Your task to perform on an android device: turn on notifications settings in the gmail app Image 0: 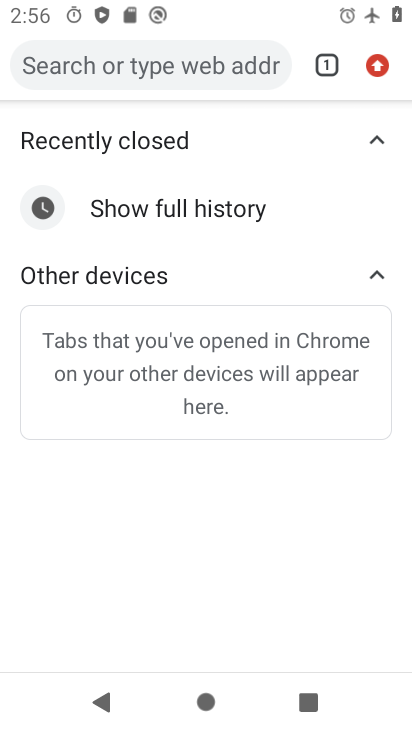
Step 0: press home button
Your task to perform on an android device: turn on notifications settings in the gmail app Image 1: 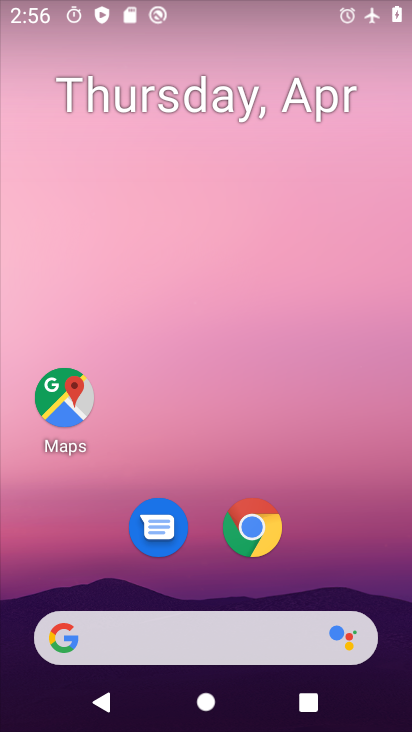
Step 1: drag from (326, 552) to (356, 136)
Your task to perform on an android device: turn on notifications settings in the gmail app Image 2: 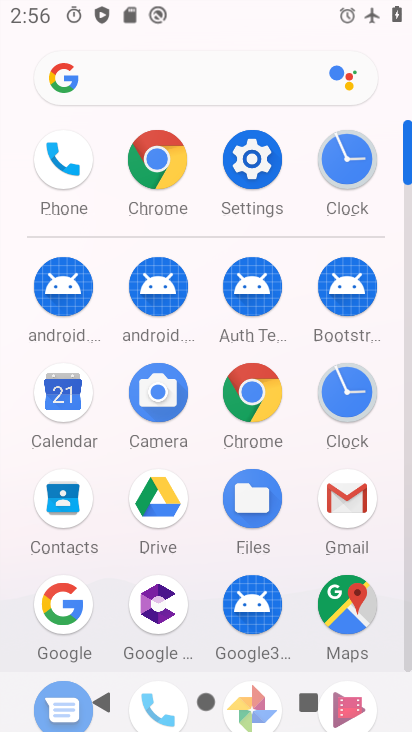
Step 2: click (348, 494)
Your task to perform on an android device: turn on notifications settings in the gmail app Image 3: 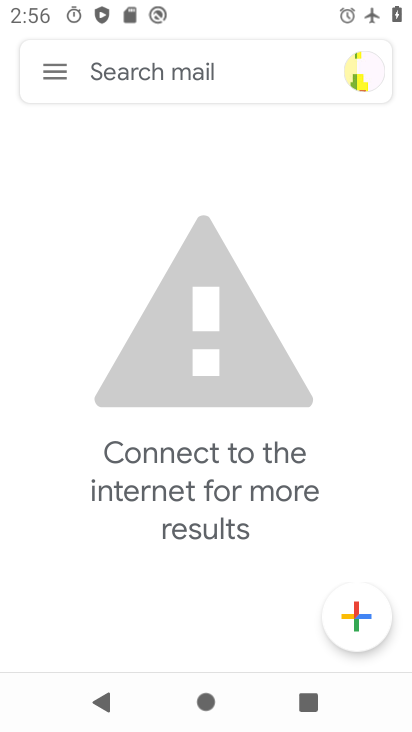
Step 3: click (61, 77)
Your task to perform on an android device: turn on notifications settings in the gmail app Image 4: 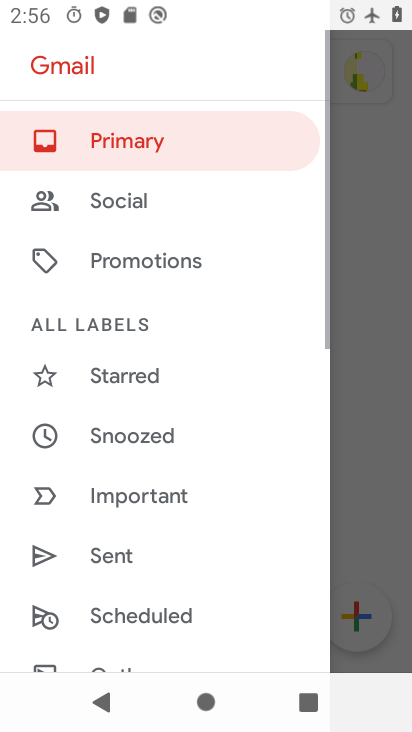
Step 4: drag from (171, 574) to (216, 167)
Your task to perform on an android device: turn on notifications settings in the gmail app Image 5: 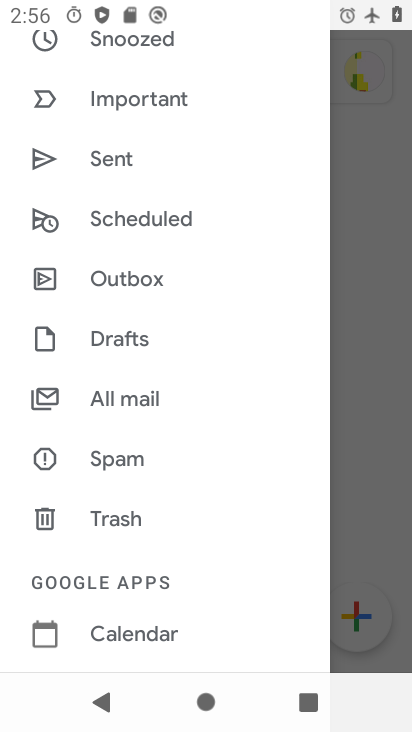
Step 5: drag from (132, 527) to (198, 181)
Your task to perform on an android device: turn on notifications settings in the gmail app Image 6: 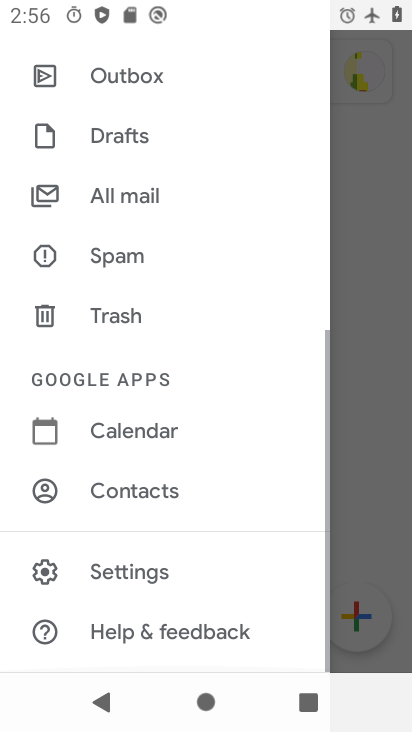
Step 6: click (127, 568)
Your task to perform on an android device: turn on notifications settings in the gmail app Image 7: 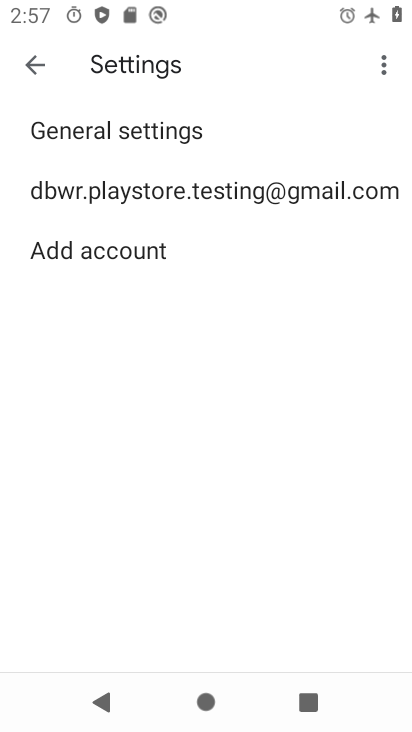
Step 7: click (188, 194)
Your task to perform on an android device: turn on notifications settings in the gmail app Image 8: 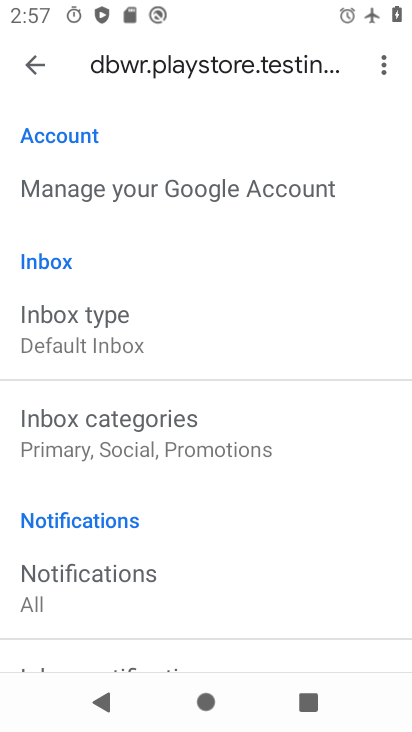
Step 8: drag from (165, 472) to (215, 168)
Your task to perform on an android device: turn on notifications settings in the gmail app Image 9: 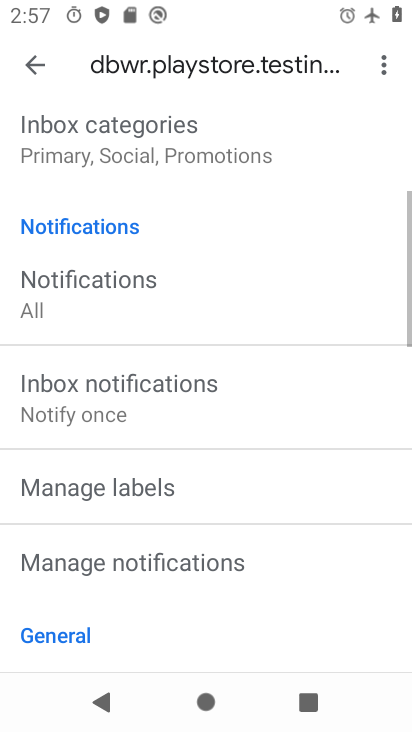
Step 9: click (91, 573)
Your task to perform on an android device: turn on notifications settings in the gmail app Image 10: 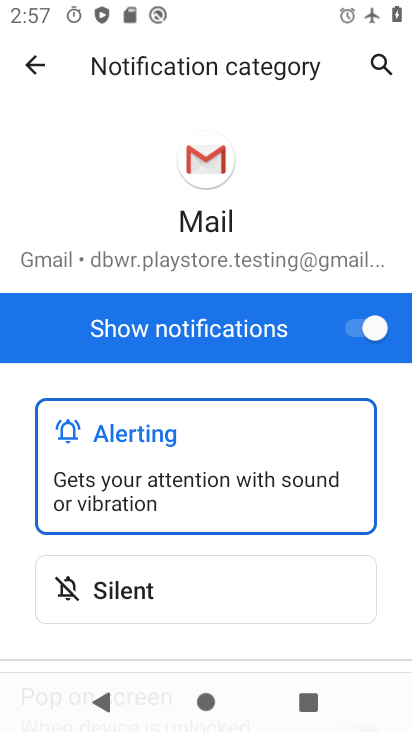
Step 10: task complete